Your task to perform on an android device: Go to Yahoo.com Image 0: 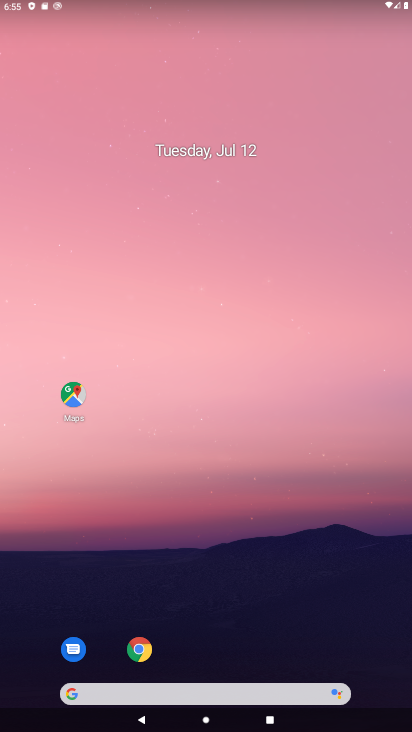
Step 0: click (141, 652)
Your task to perform on an android device: Go to Yahoo.com Image 1: 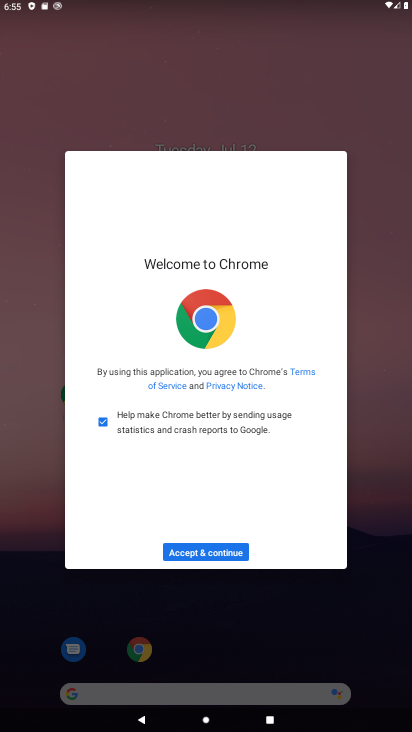
Step 1: click (206, 551)
Your task to perform on an android device: Go to Yahoo.com Image 2: 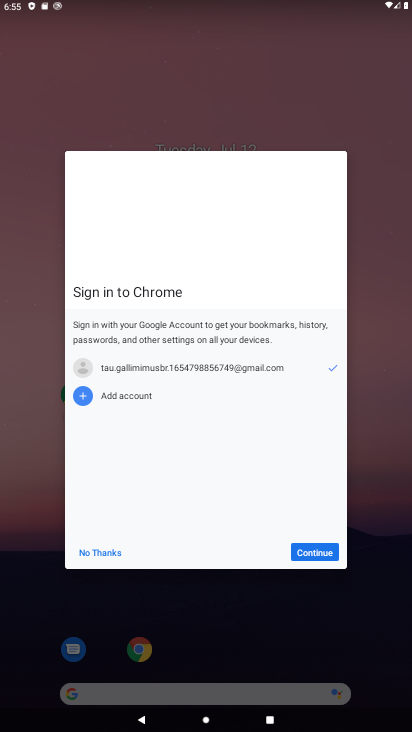
Step 2: click (316, 556)
Your task to perform on an android device: Go to Yahoo.com Image 3: 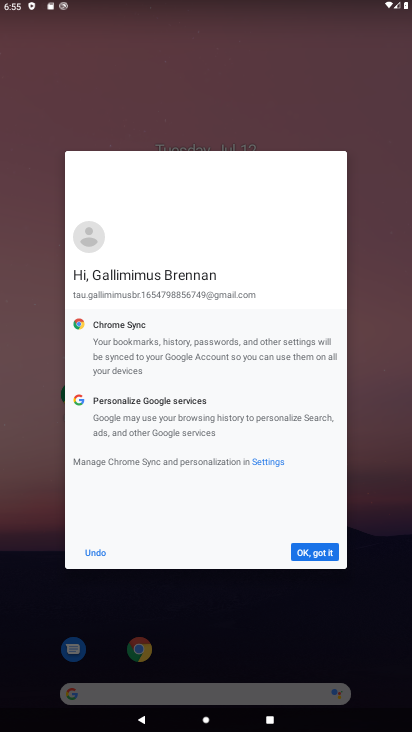
Step 3: click (316, 556)
Your task to perform on an android device: Go to Yahoo.com Image 4: 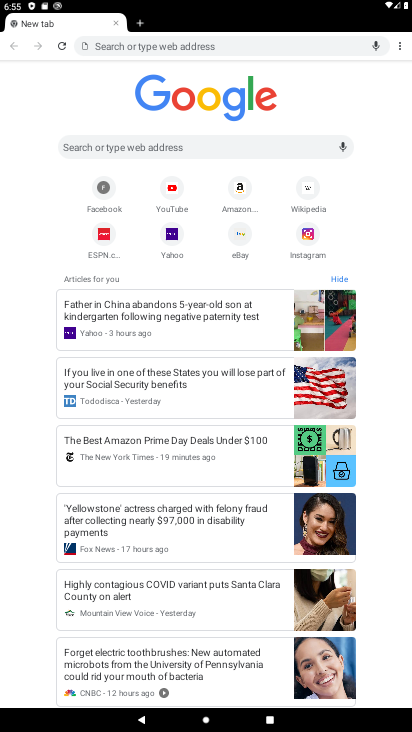
Step 4: click (169, 238)
Your task to perform on an android device: Go to Yahoo.com Image 5: 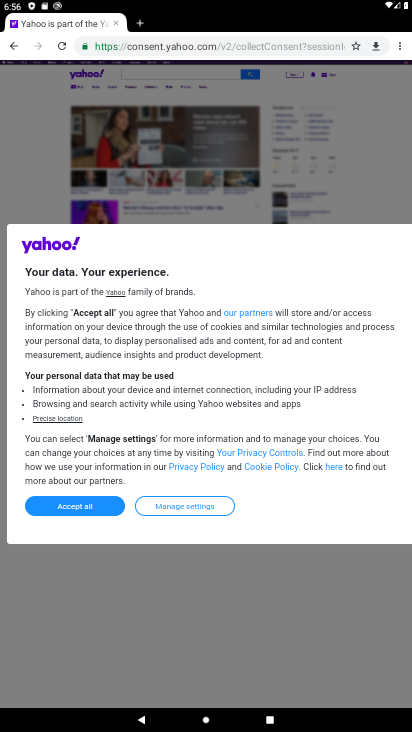
Step 5: click (104, 513)
Your task to perform on an android device: Go to Yahoo.com Image 6: 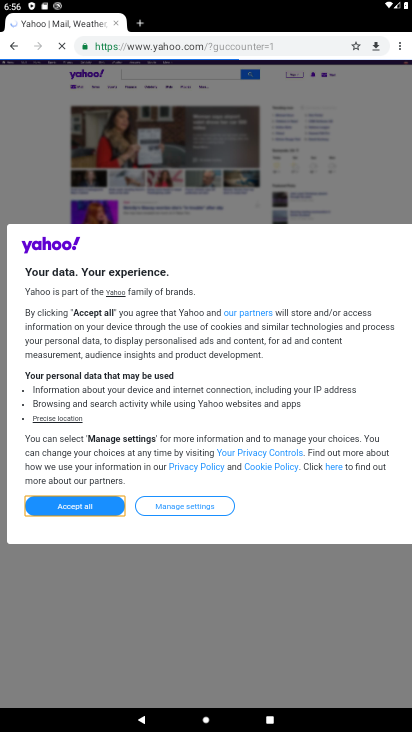
Step 6: click (104, 513)
Your task to perform on an android device: Go to Yahoo.com Image 7: 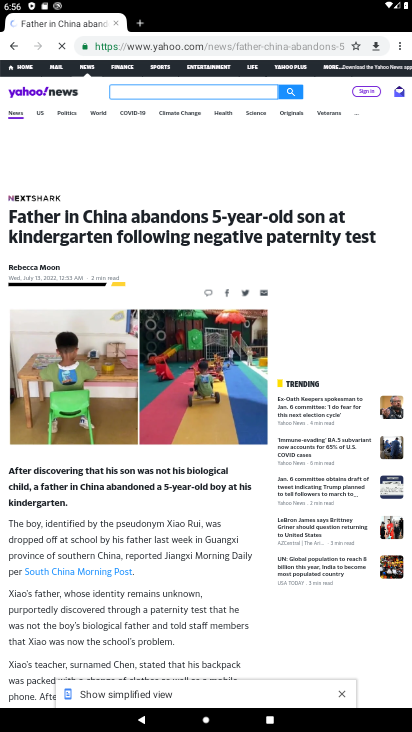
Step 7: task complete